Your task to perform on an android device: Open calendar and show me the third week of next month Image 0: 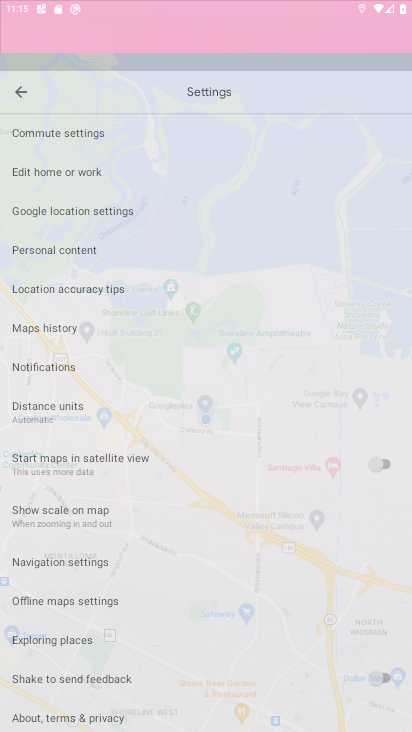
Step 0: press home button
Your task to perform on an android device: Open calendar and show me the third week of next month Image 1: 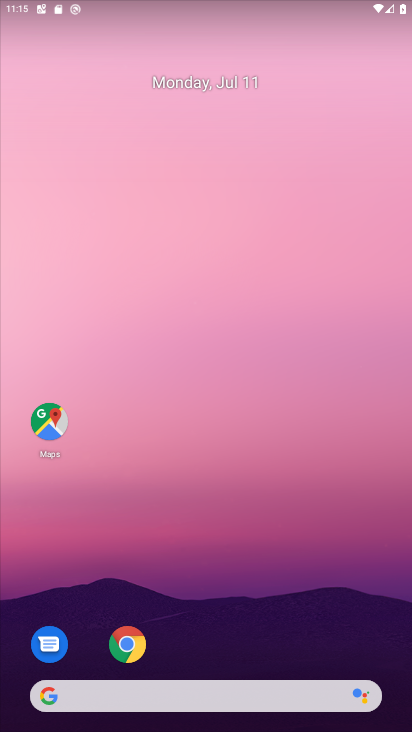
Step 1: drag from (235, 619) to (183, 366)
Your task to perform on an android device: Open calendar and show me the third week of next month Image 2: 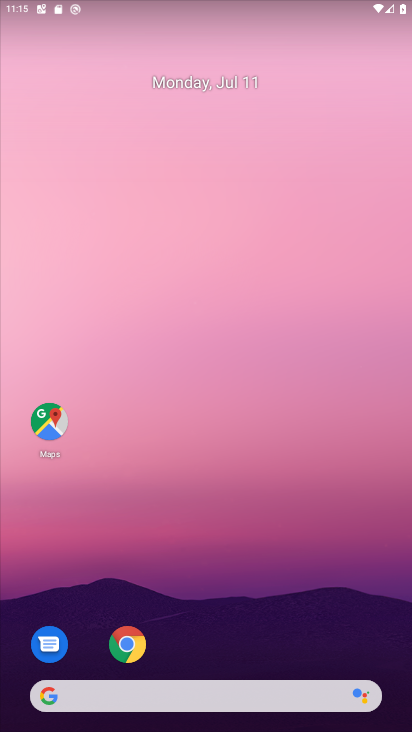
Step 2: drag from (169, 536) to (154, 49)
Your task to perform on an android device: Open calendar and show me the third week of next month Image 3: 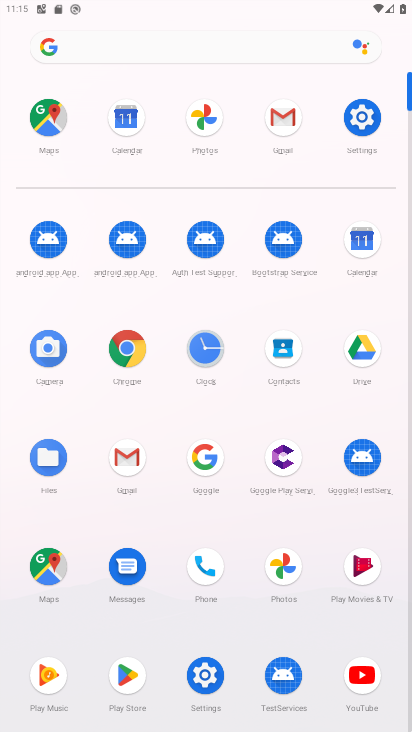
Step 3: click (385, 238)
Your task to perform on an android device: Open calendar and show me the third week of next month Image 4: 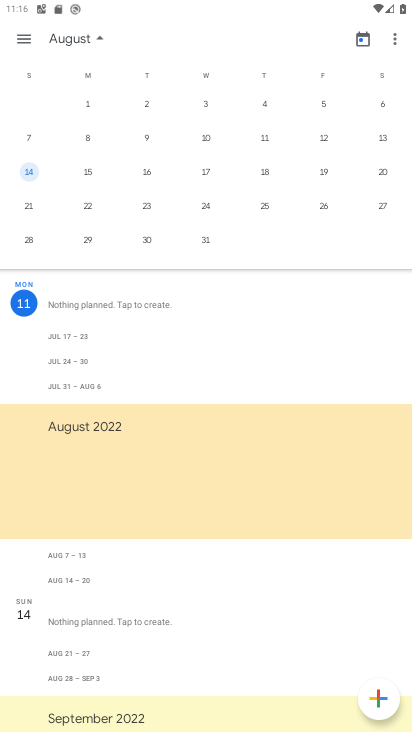
Step 4: click (31, 176)
Your task to perform on an android device: Open calendar and show me the third week of next month Image 5: 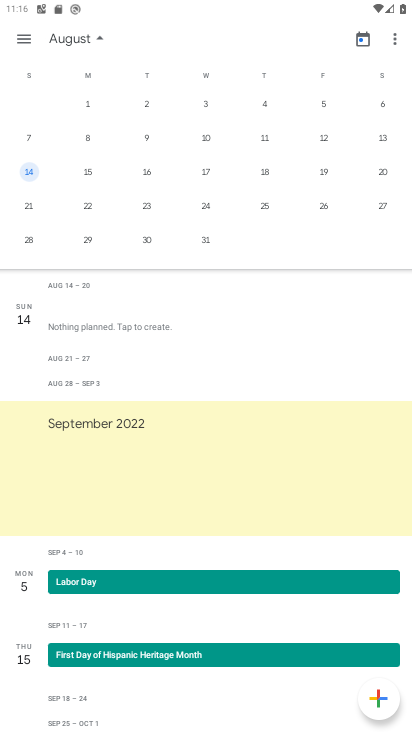
Step 5: task complete